Your task to perform on an android device: Show me the alarms in the clock app Image 0: 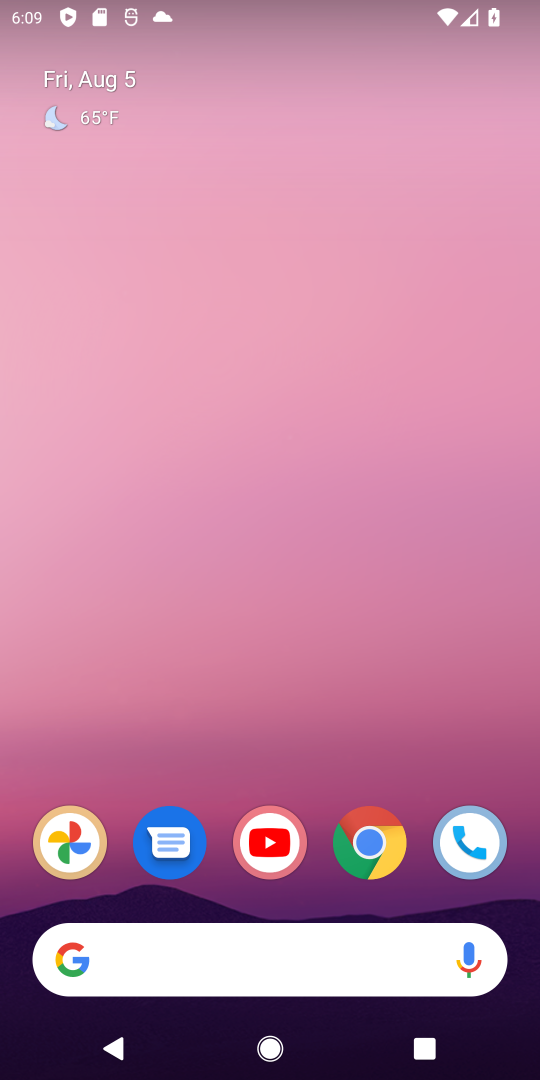
Step 0: drag from (55, 850) to (375, 162)
Your task to perform on an android device: Show me the alarms in the clock app Image 1: 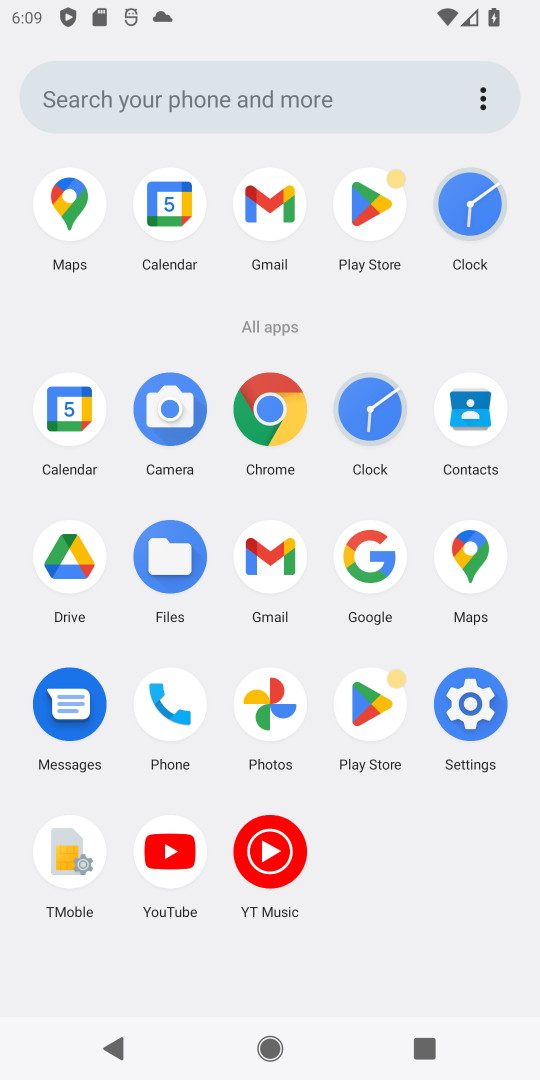
Step 1: click (353, 411)
Your task to perform on an android device: Show me the alarms in the clock app Image 2: 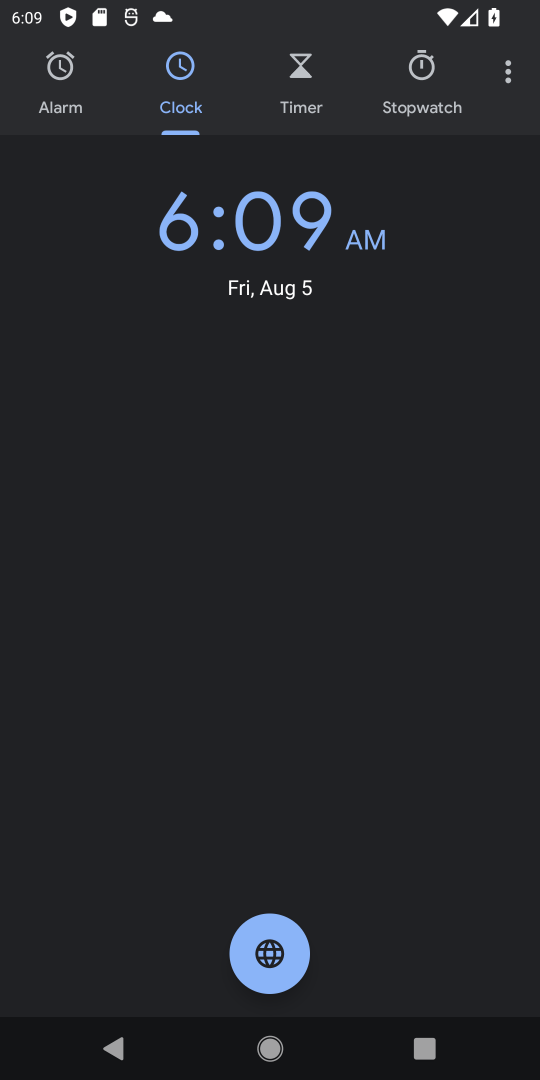
Step 2: click (79, 100)
Your task to perform on an android device: Show me the alarms in the clock app Image 3: 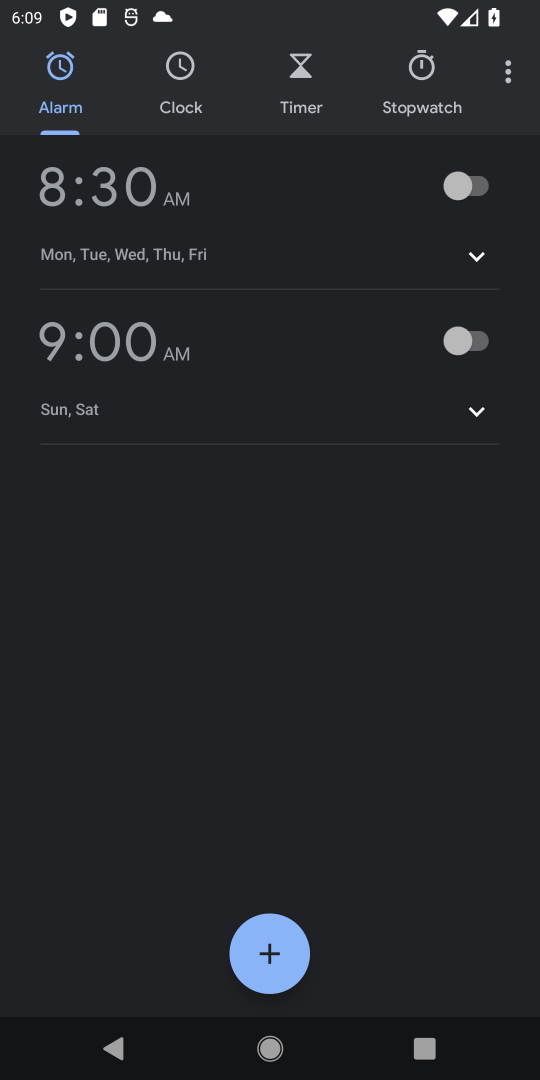
Step 3: task complete